Your task to perform on an android device: Do I have any events today? Image 0: 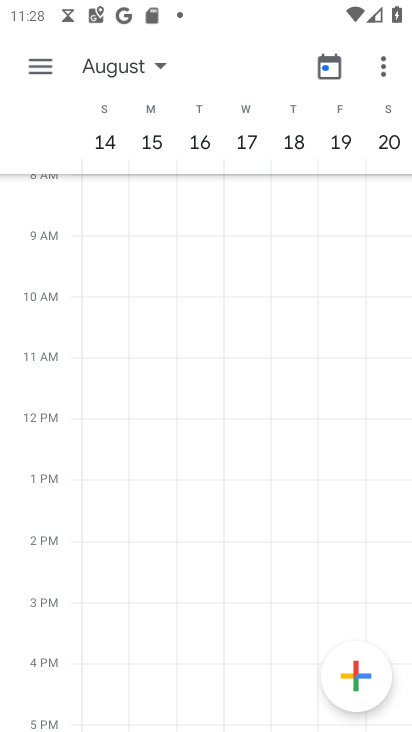
Step 0: press home button
Your task to perform on an android device: Do I have any events today? Image 1: 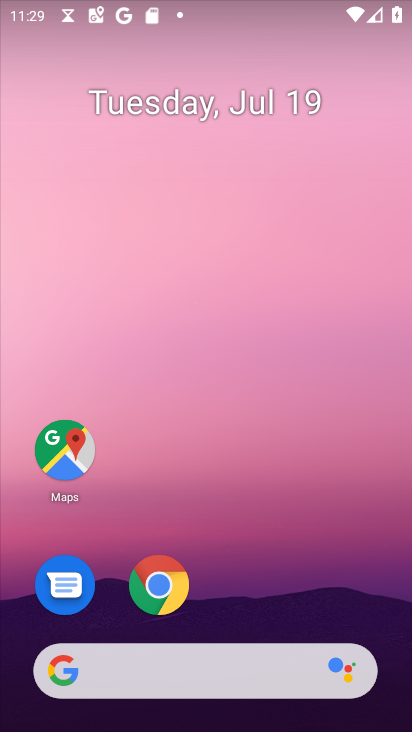
Step 1: drag from (195, 668) to (312, 104)
Your task to perform on an android device: Do I have any events today? Image 2: 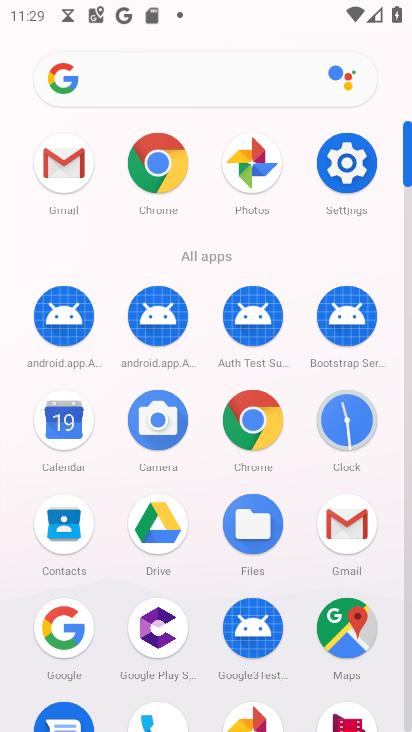
Step 2: click (64, 426)
Your task to perform on an android device: Do I have any events today? Image 3: 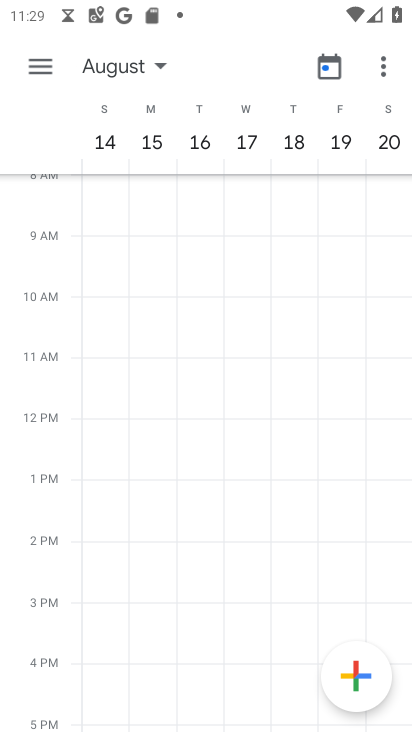
Step 3: click (85, 70)
Your task to perform on an android device: Do I have any events today? Image 4: 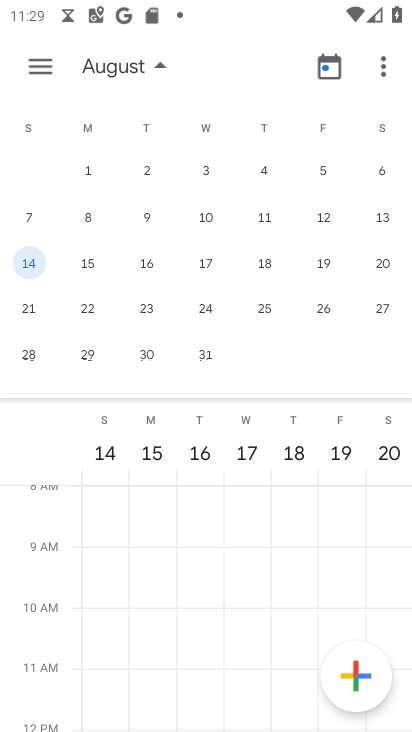
Step 4: drag from (73, 293) to (347, 215)
Your task to perform on an android device: Do I have any events today? Image 5: 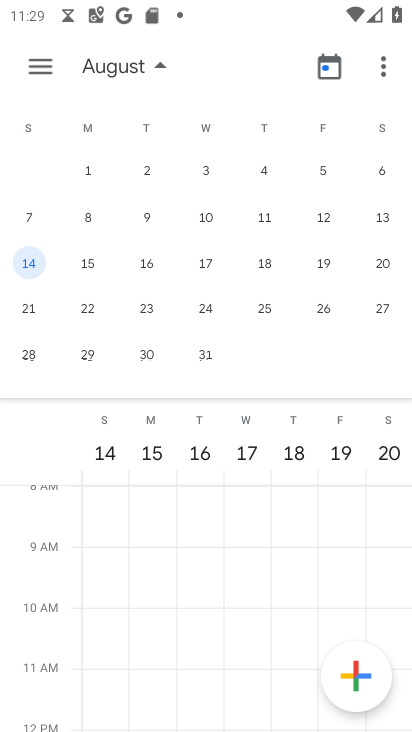
Step 5: drag from (45, 214) to (411, 220)
Your task to perform on an android device: Do I have any events today? Image 6: 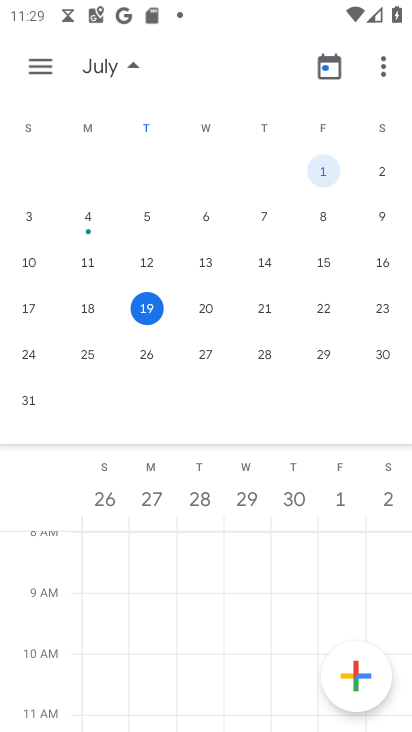
Step 6: click (143, 318)
Your task to perform on an android device: Do I have any events today? Image 7: 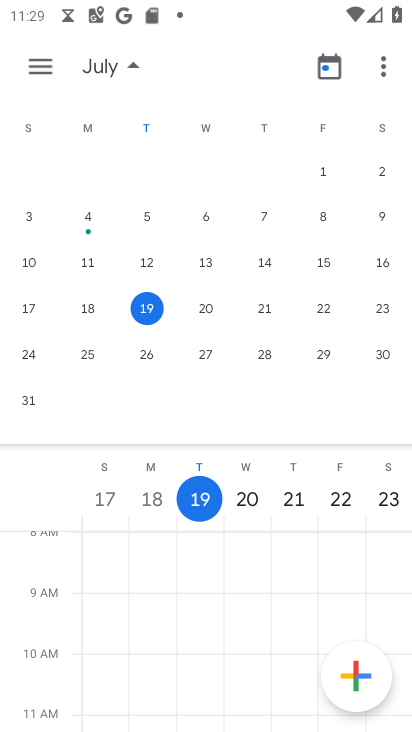
Step 7: click (36, 62)
Your task to perform on an android device: Do I have any events today? Image 8: 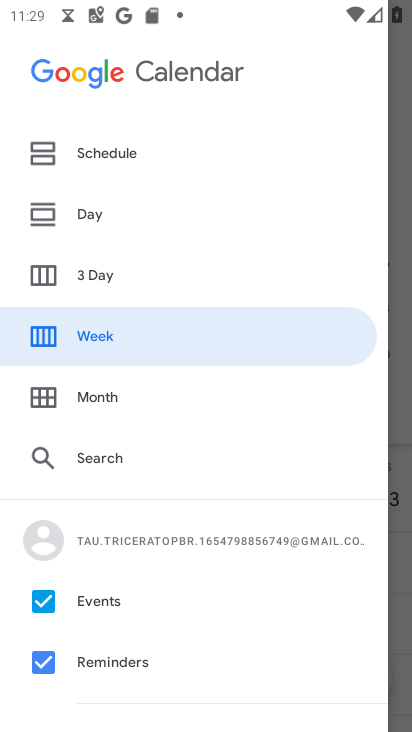
Step 8: click (91, 208)
Your task to perform on an android device: Do I have any events today? Image 9: 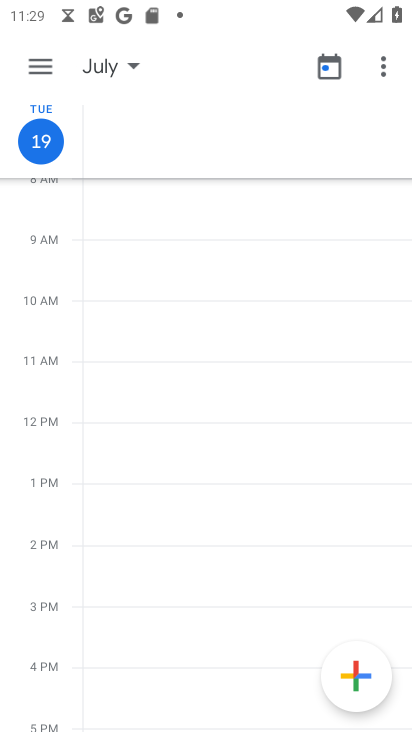
Step 9: click (49, 68)
Your task to perform on an android device: Do I have any events today? Image 10: 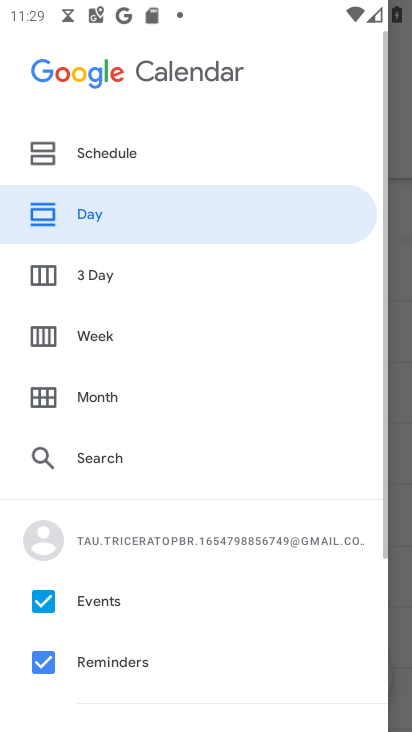
Step 10: click (96, 153)
Your task to perform on an android device: Do I have any events today? Image 11: 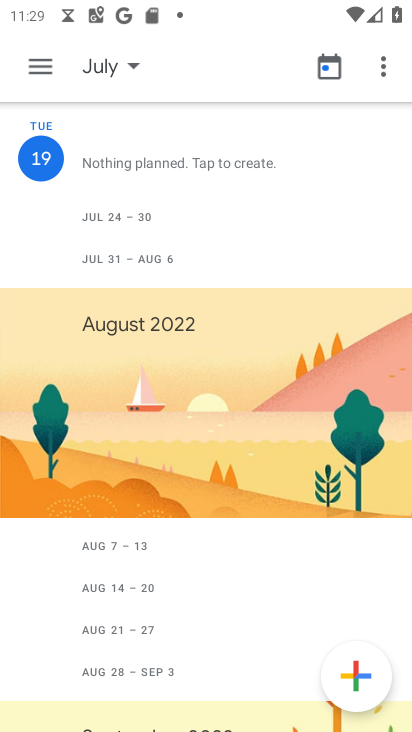
Step 11: task complete